Your task to perform on an android device: turn on notifications settings in the gmail app Image 0: 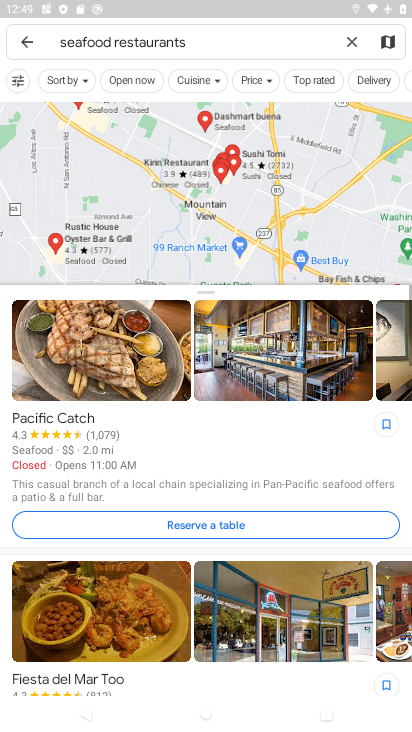
Step 0: press home button
Your task to perform on an android device: turn on notifications settings in the gmail app Image 1: 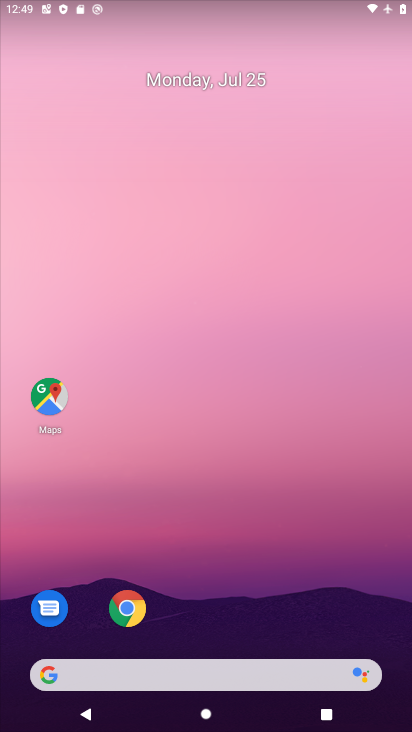
Step 1: drag from (249, 603) to (411, 94)
Your task to perform on an android device: turn on notifications settings in the gmail app Image 2: 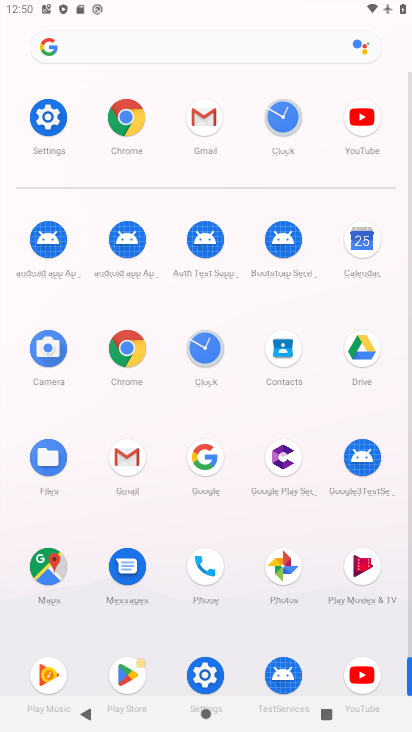
Step 2: click (192, 132)
Your task to perform on an android device: turn on notifications settings in the gmail app Image 3: 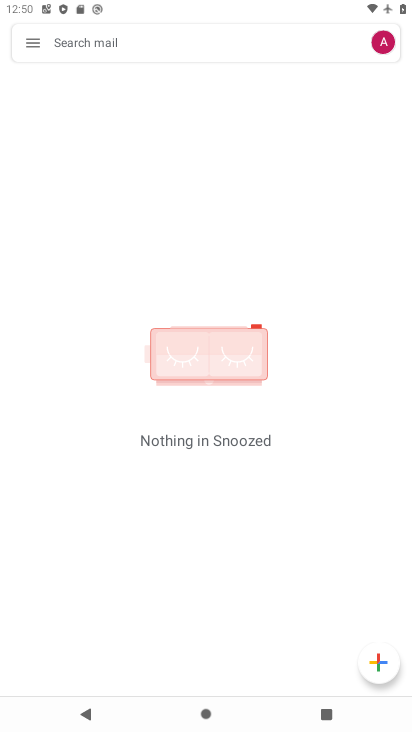
Step 3: click (33, 31)
Your task to perform on an android device: turn on notifications settings in the gmail app Image 4: 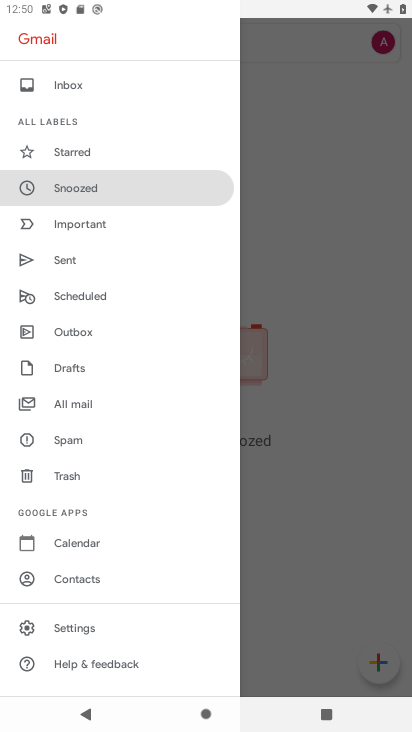
Step 4: click (84, 627)
Your task to perform on an android device: turn on notifications settings in the gmail app Image 5: 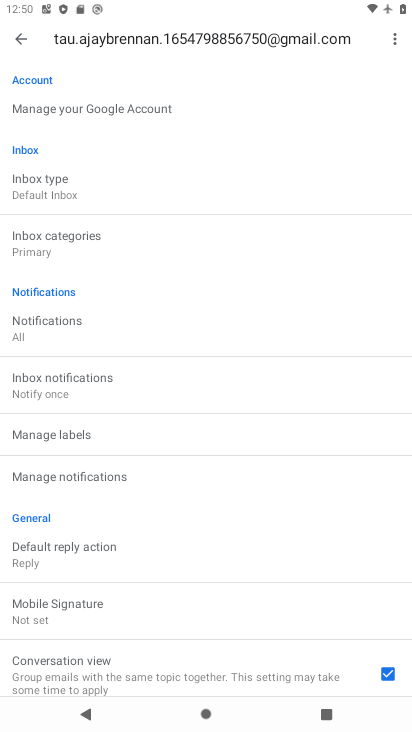
Step 5: click (22, 43)
Your task to perform on an android device: turn on notifications settings in the gmail app Image 6: 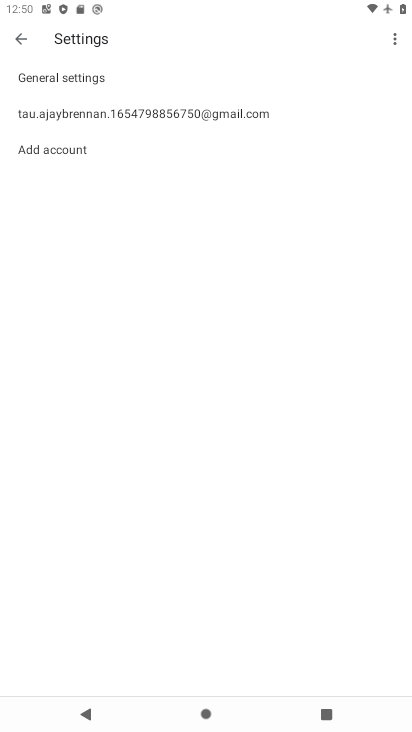
Step 6: click (40, 80)
Your task to perform on an android device: turn on notifications settings in the gmail app Image 7: 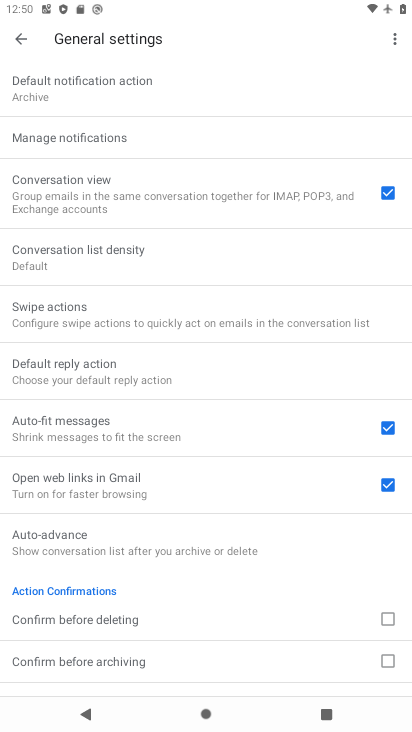
Step 7: click (85, 147)
Your task to perform on an android device: turn on notifications settings in the gmail app Image 8: 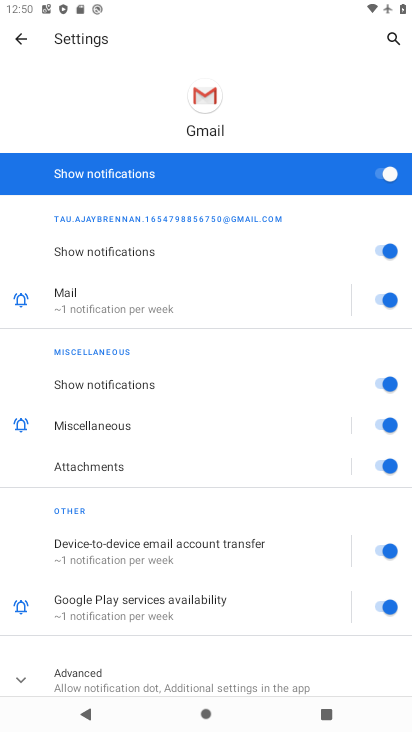
Step 8: task complete